Your task to perform on an android device: turn on wifi Image 0: 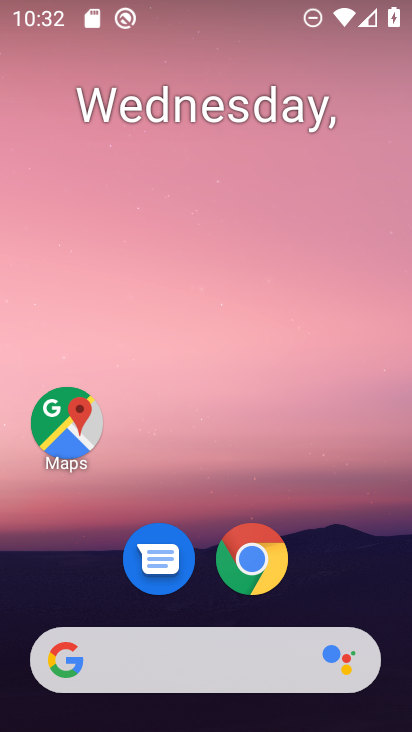
Step 0: drag from (375, 577) to (386, 229)
Your task to perform on an android device: turn on wifi Image 1: 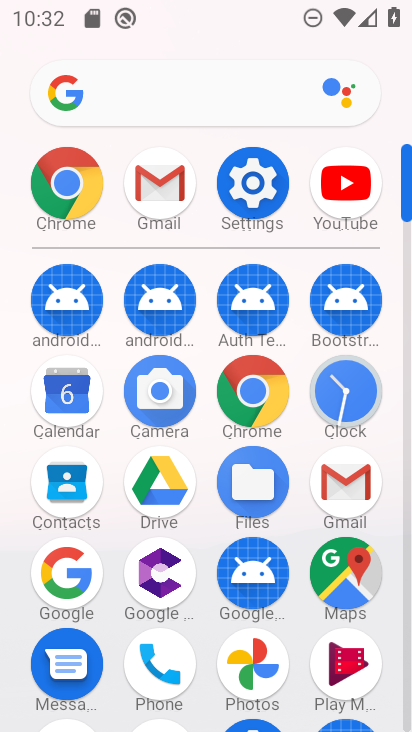
Step 1: click (265, 192)
Your task to perform on an android device: turn on wifi Image 2: 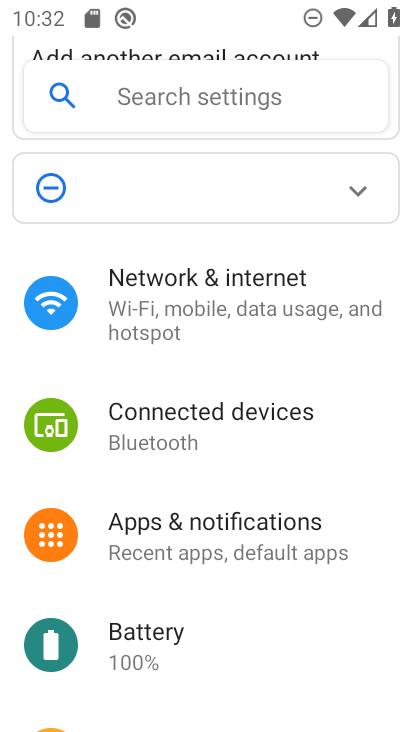
Step 2: click (250, 308)
Your task to perform on an android device: turn on wifi Image 3: 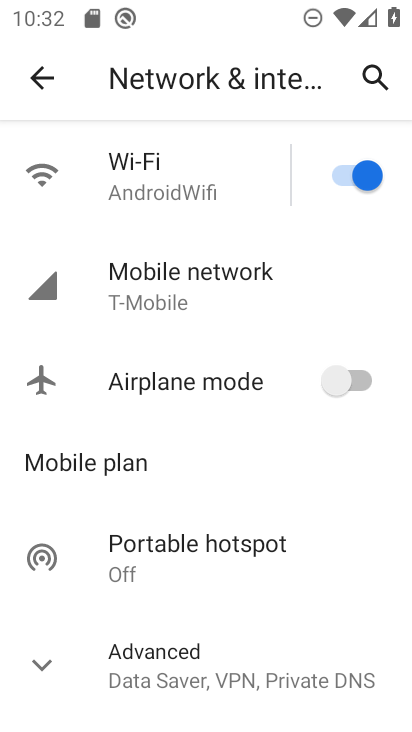
Step 3: task complete